Your task to perform on an android device: change keyboard looks Image 0: 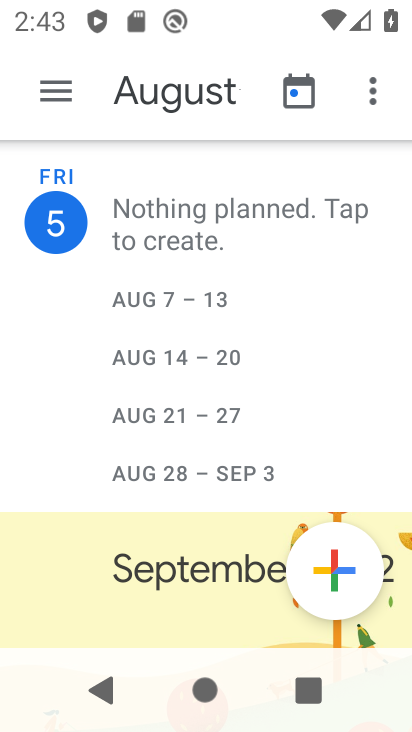
Step 0: press home button
Your task to perform on an android device: change keyboard looks Image 1: 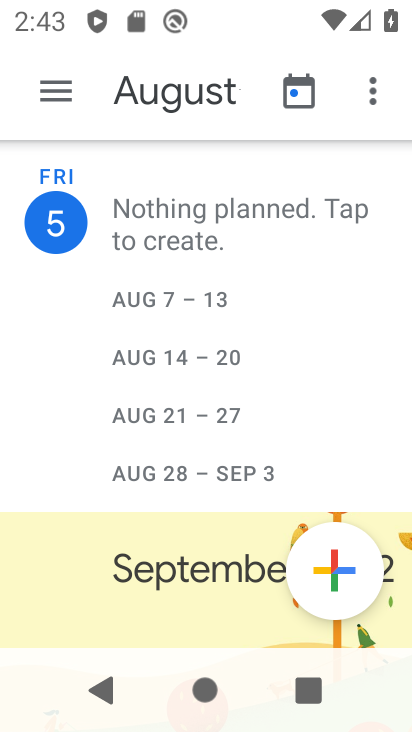
Step 1: press home button
Your task to perform on an android device: change keyboard looks Image 2: 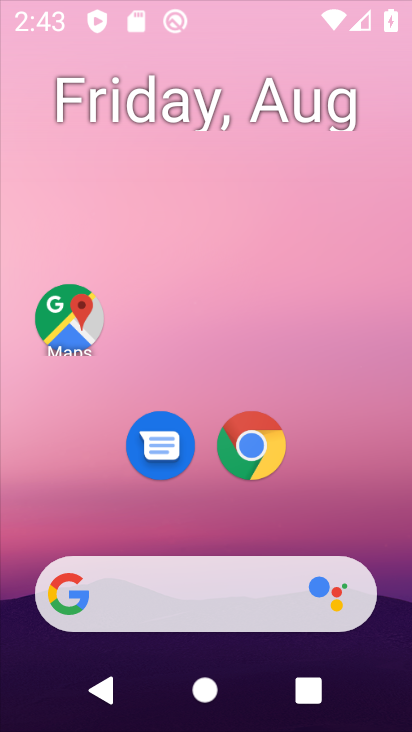
Step 2: press home button
Your task to perform on an android device: change keyboard looks Image 3: 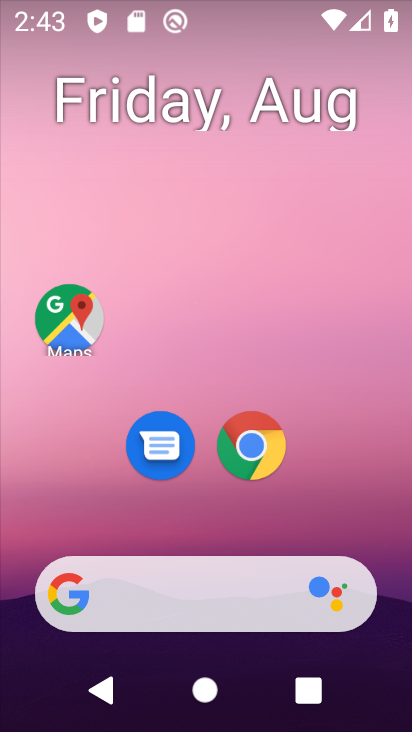
Step 3: drag from (374, 510) to (300, 42)
Your task to perform on an android device: change keyboard looks Image 4: 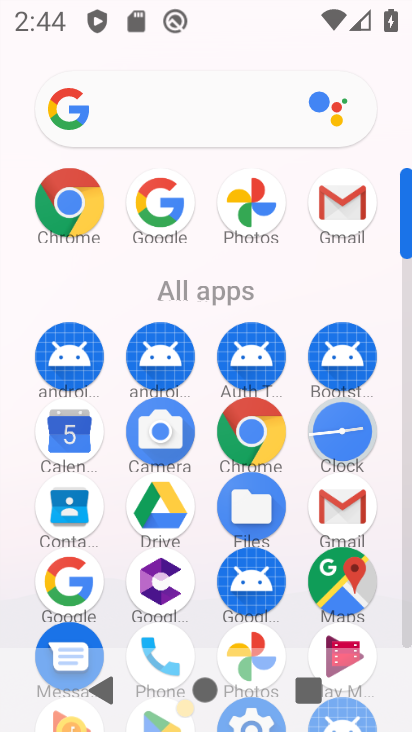
Step 4: drag from (206, 557) to (191, 294)
Your task to perform on an android device: change keyboard looks Image 5: 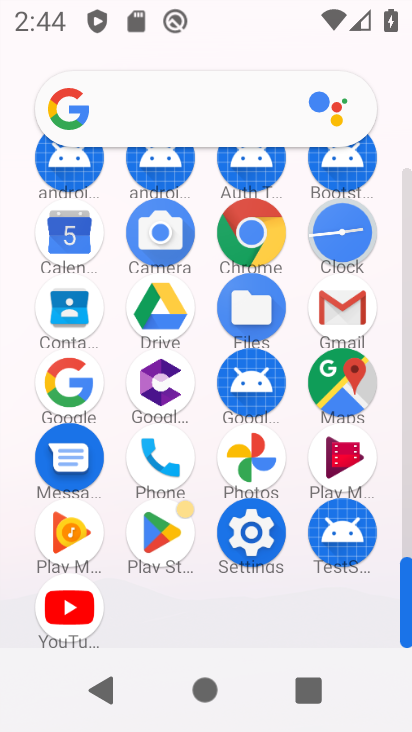
Step 5: click (265, 553)
Your task to perform on an android device: change keyboard looks Image 6: 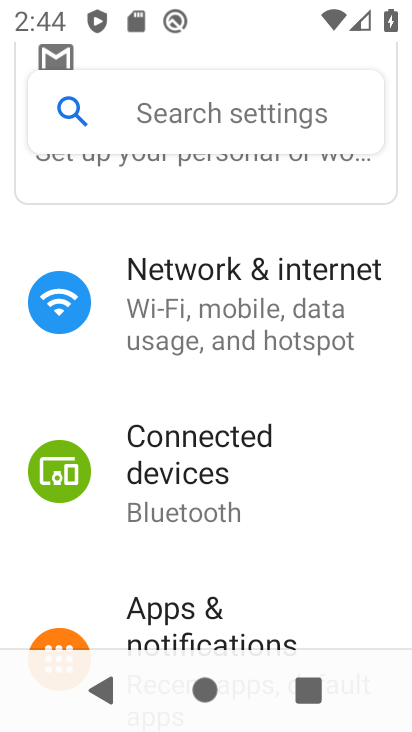
Step 6: drag from (342, 550) to (406, 184)
Your task to perform on an android device: change keyboard looks Image 7: 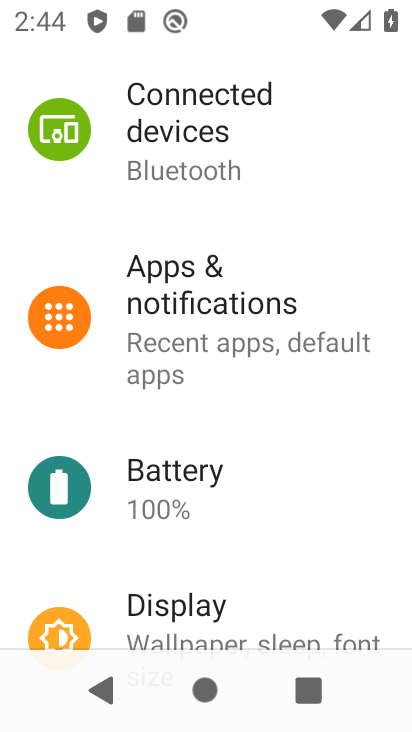
Step 7: drag from (299, 527) to (309, 122)
Your task to perform on an android device: change keyboard looks Image 8: 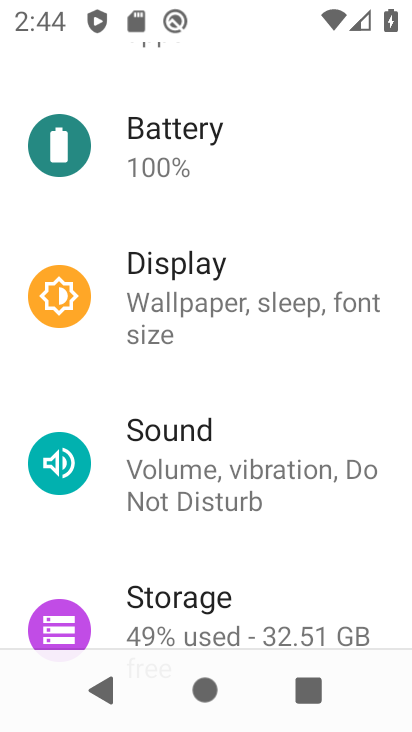
Step 8: drag from (300, 551) to (314, 138)
Your task to perform on an android device: change keyboard looks Image 9: 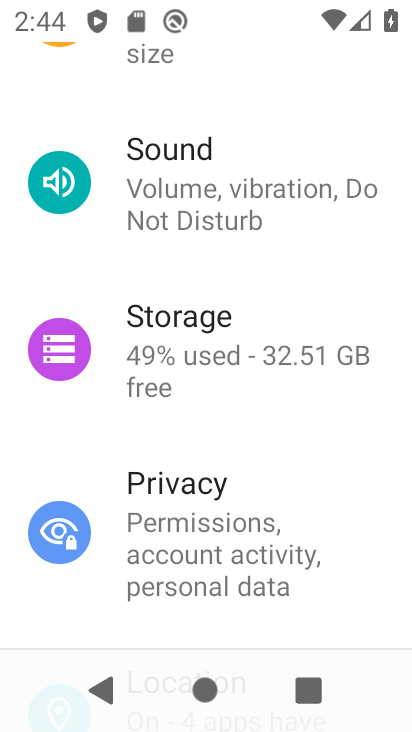
Step 9: drag from (327, 524) to (320, 176)
Your task to perform on an android device: change keyboard looks Image 10: 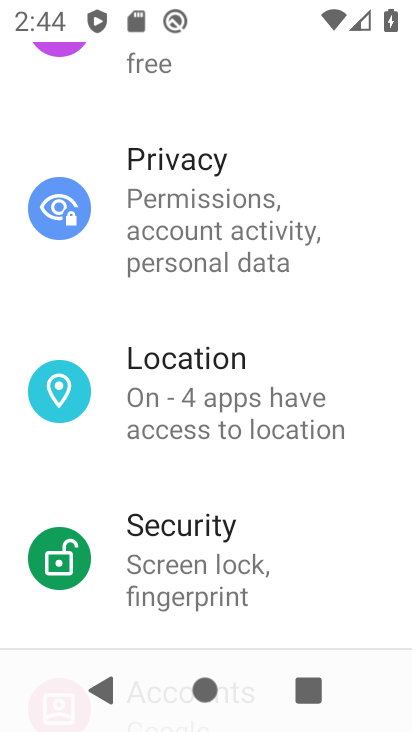
Step 10: drag from (277, 482) to (288, 113)
Your task to perform on an android device: change keyboard looks Image 11: 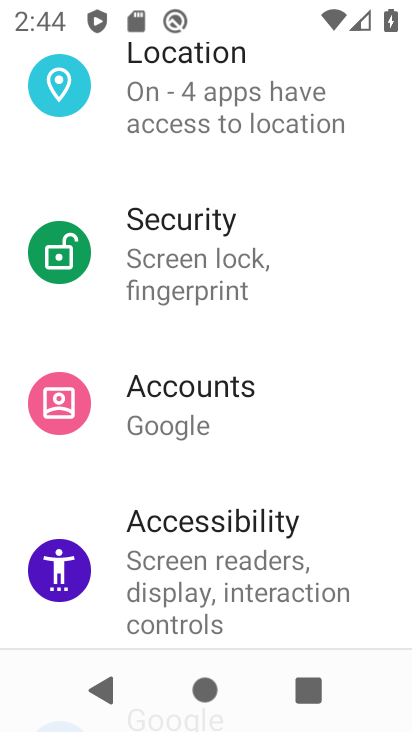
Step 11: drag from (324, 537) to (322, 195)
Your task to perform on an android device: change keyboard looks Image 12: 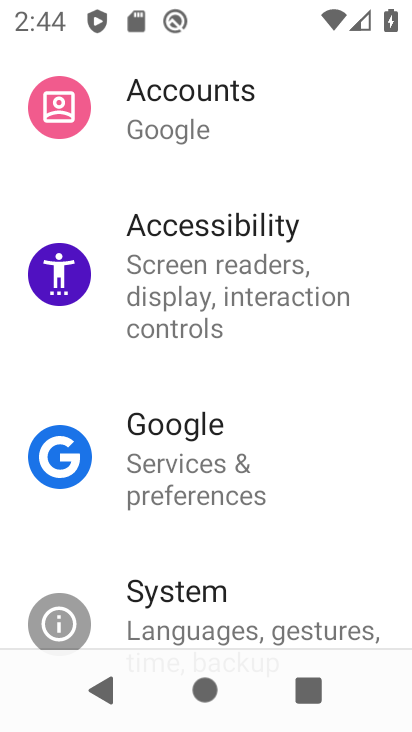
Step 12: drag from (286, 547) to (328, 279)
Your task to perform on an android device: change keyboard looks Image 13: 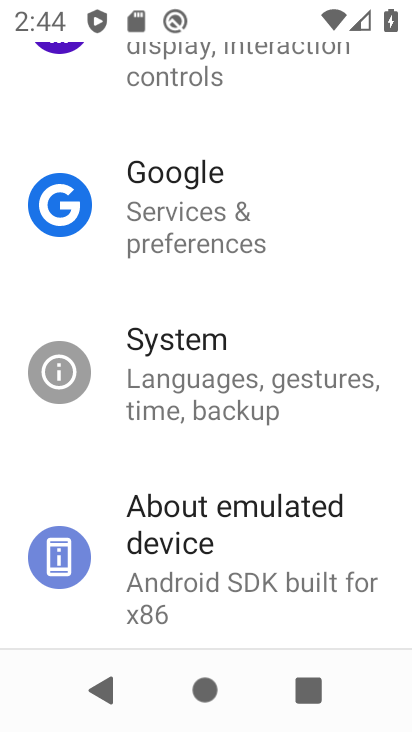
Step 13: click (218, 394)
Your task to perform on an android device: change keyboard looks Image 14: 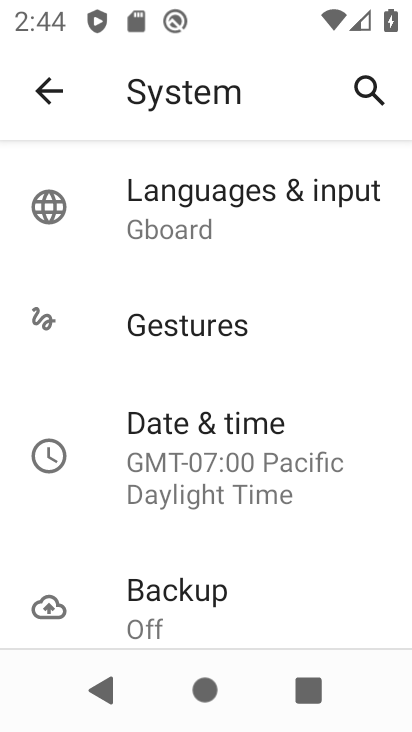
Step 14: click (188, 209)
Your task to perform on an android device: change keyboard looks Image 15: 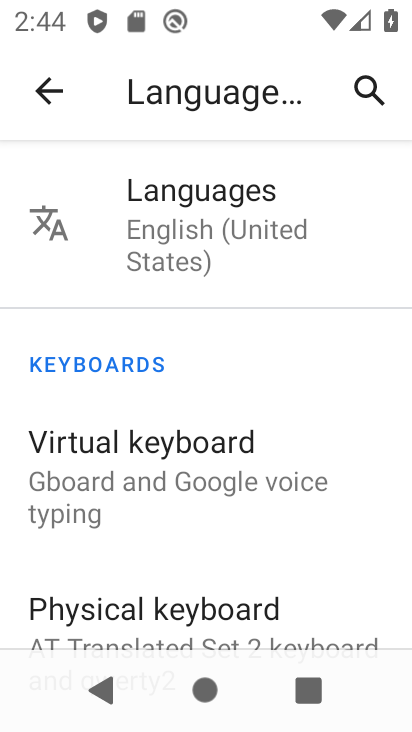
Step 15: click (207, 457)
Your task to perform on an android device: change keyboard looks Image 16: 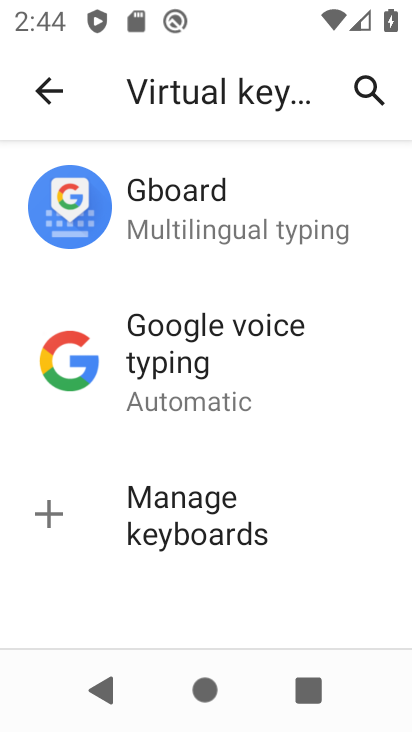
Step 16: click (204, 221)
Your task to perform on an android device: change keyboard looks Image 17: 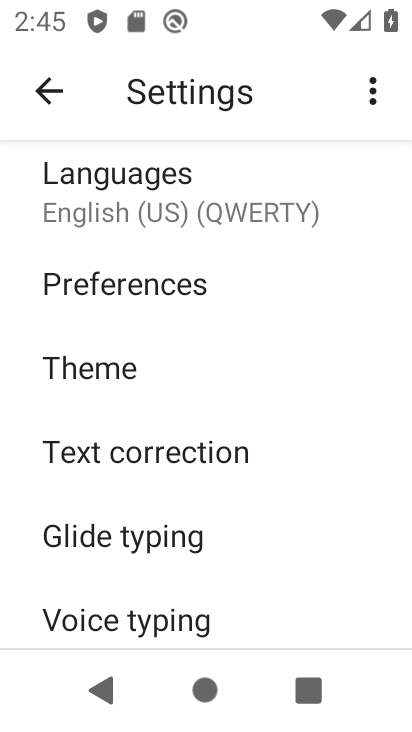
Step 17: click (127, 361)
Your task to perform on an android device: change keyboard looks Image 18: 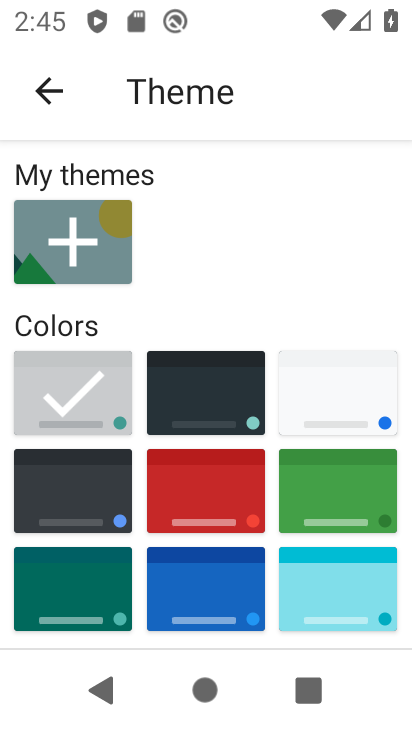
Step 18: click (328, 396)
Your task to perform on an android device: change keyboard looks Image 19: 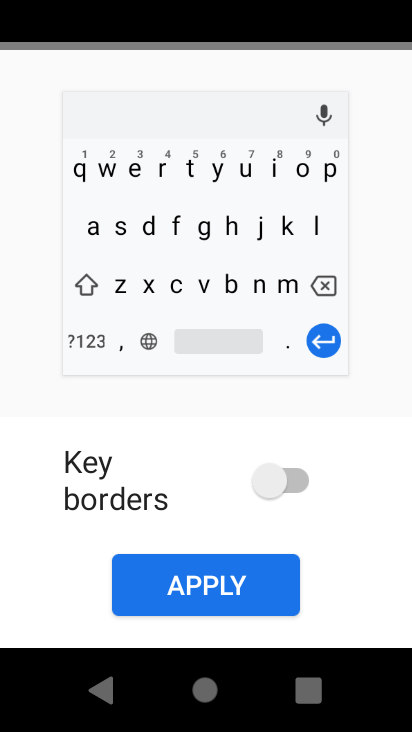
Step 19: click (235, 566)
Your task to perform on an android device: change keyboard looks Image 20: 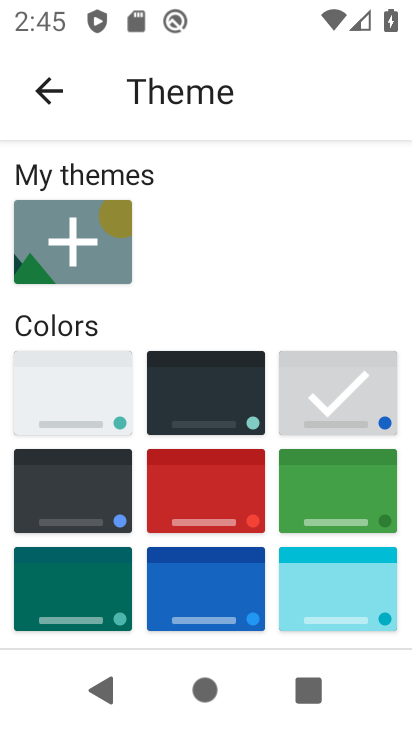
Step 20: task complete